Your task to perform on an android device: Open Chrome and go to settings Image 0: 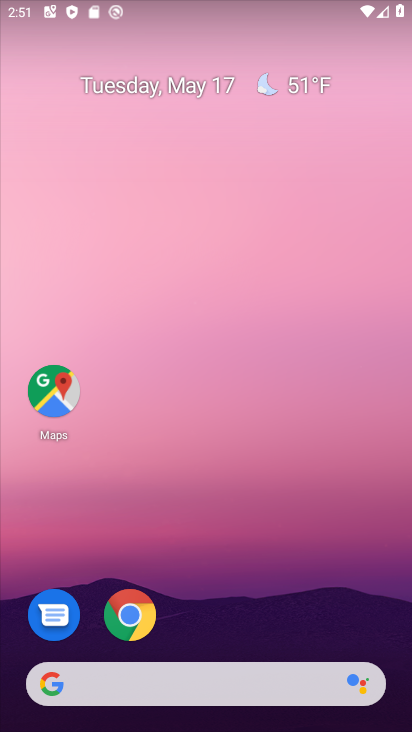
Step 0: drag from (229, 641) to (288, 228)
Your task to perform on an android device: Open Chrome and go to settings Image 1: 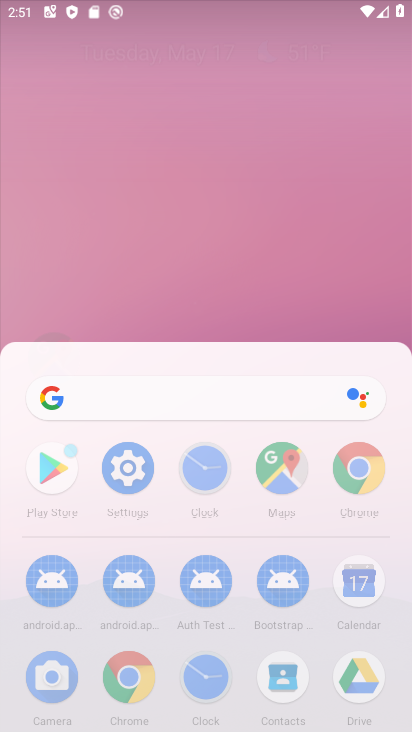
Step 1: click (288, 88)
Your task to perform on an android device: Open Chrome and go to settings Image 2: 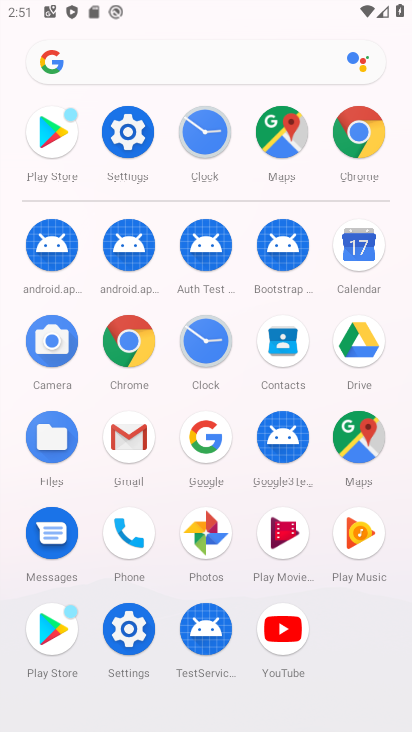
Step 2: click (124, 333)
Your task to perform on an android device: Open Chrome and go to settings Image 3: 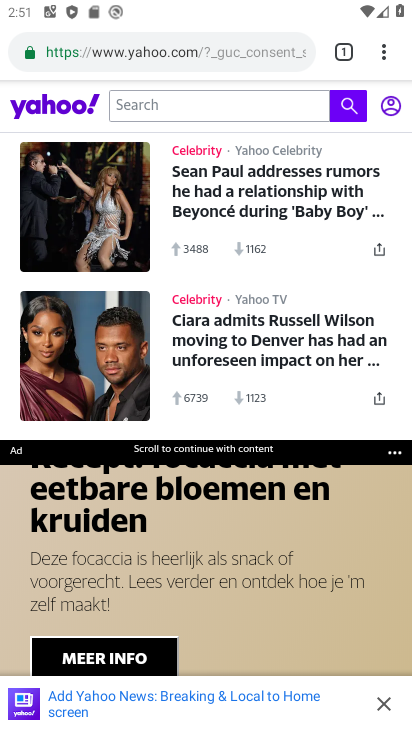
Step 3: click (382, 52)
Your task to perform on an android device: Open Chrome and go to settings Image 4: 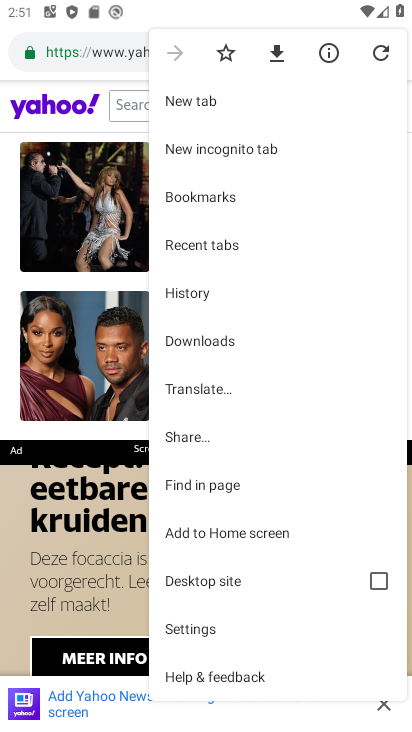
Step 4: click (230, 626)
Your task to perform on an android device: Open Chrome and go to settings Image 5: 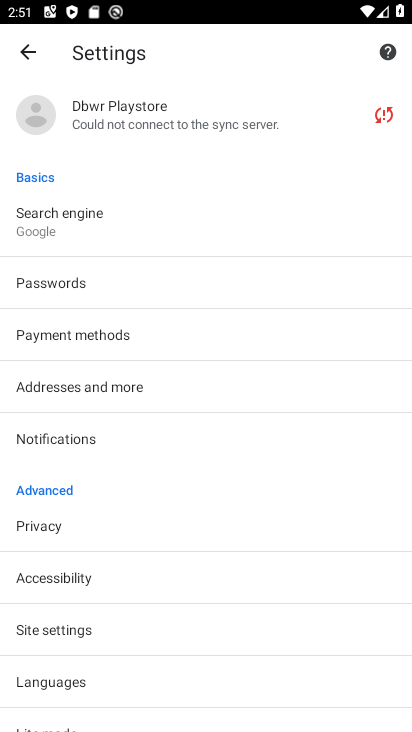
Step 5: task complete